Your task to perform on an android device: Go to Google maps Image 0: 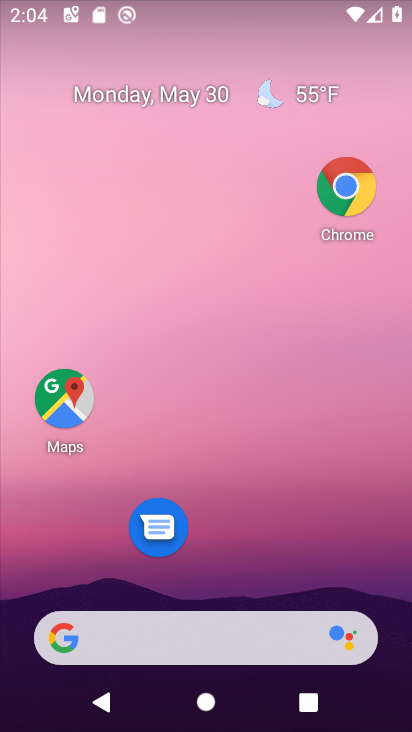
Step 0: drag from (219, 591) to (222, 143)
Your task to perform on an android device: Go to Google maps Image 1: 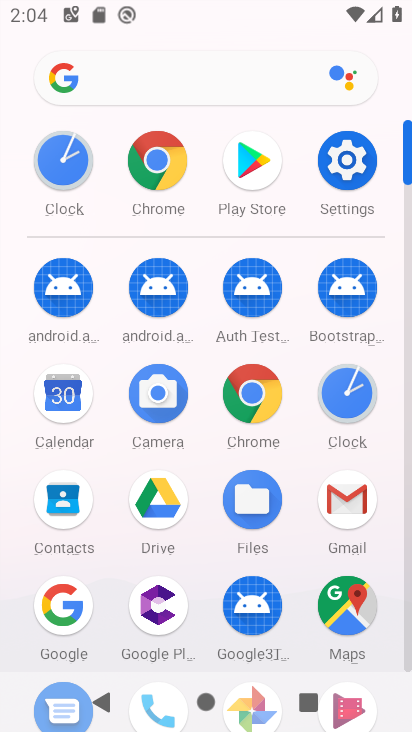
Step 1: click (342, 601)
Your task to perform on an android device: Go to Google maps Image 2: 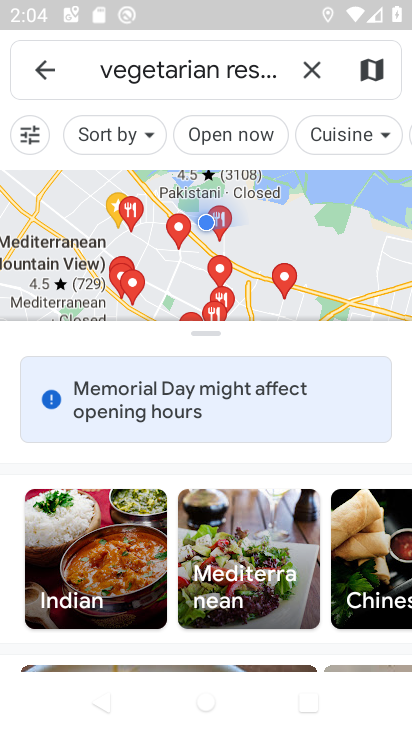
Step 2: task complete